Your task to perform on an android device: Go to Google Image 0: 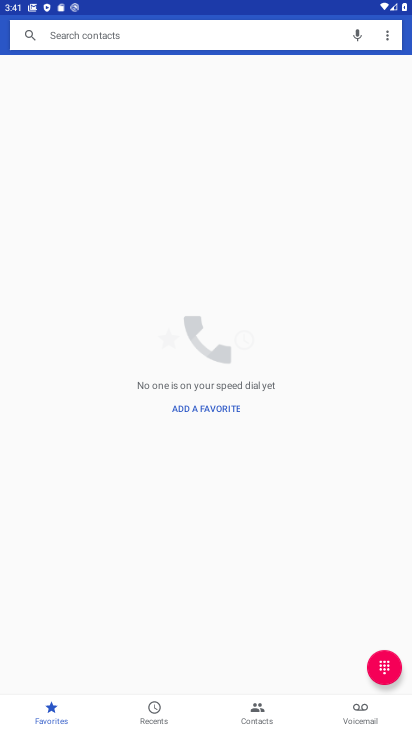
Step 0: press home button
Your task to perform on an android device: Go to Google Image 1: 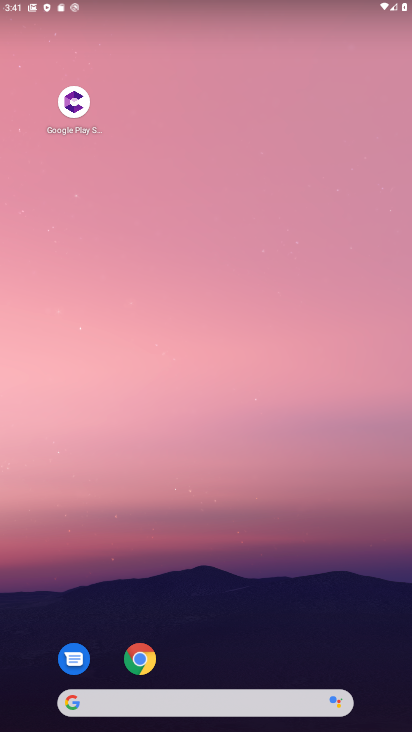
Step 1: click (150, 697)
Your task to perform on an android device: Go to Google Image 2: 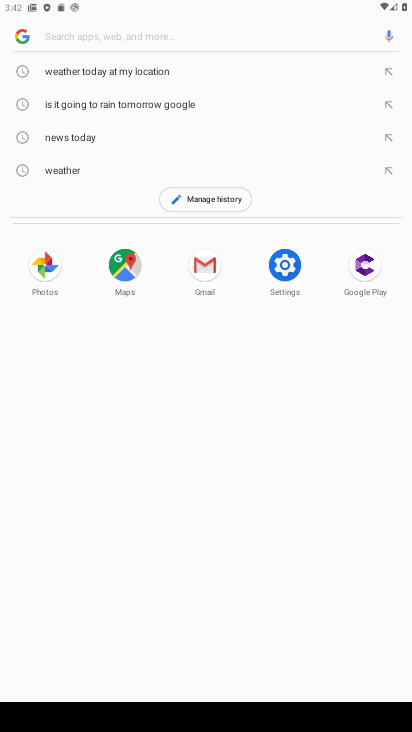
Step 2: task complete